Your task to perform on an android device: Go to Wikipedia Image 0: 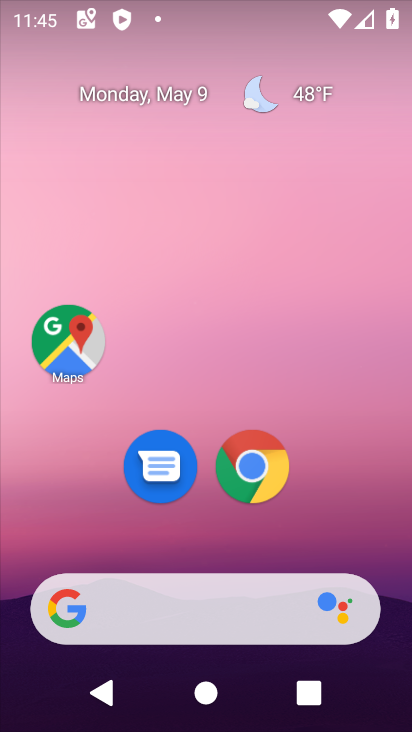
Step 0: click (245, 462)
Your task to perform on an android device: Go to Wikipedia Image 1: 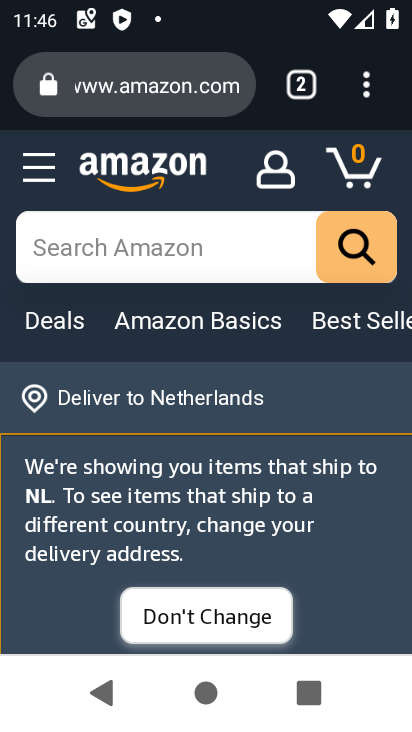
Step 1: click (360, 92)
Your task to perform on an android device: Go to Wikipedia Image 2: 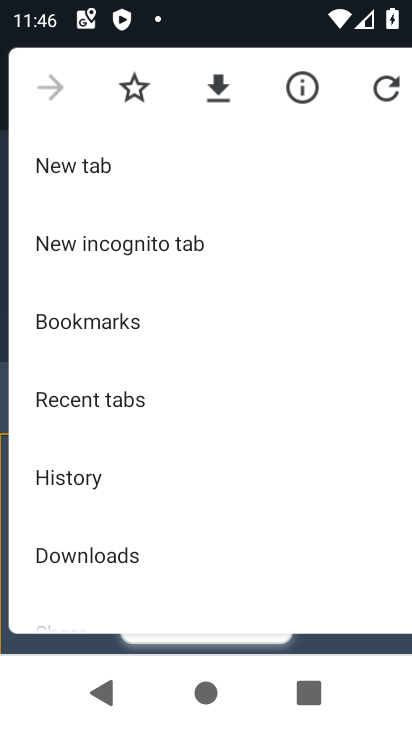
Step 2: click (43, 165)
Your task to perform on an android device: Go to Wikipedia Image 3: 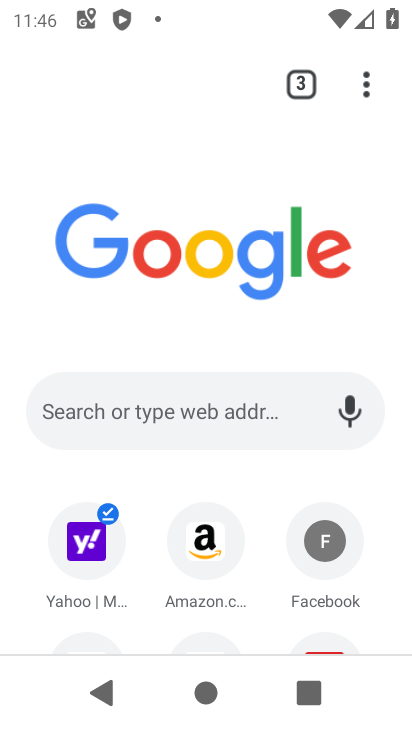
Step 3: drag from (394, 591) to (372, 167)
Your task to perform on an android device: Go to Wikipedia Image 4: 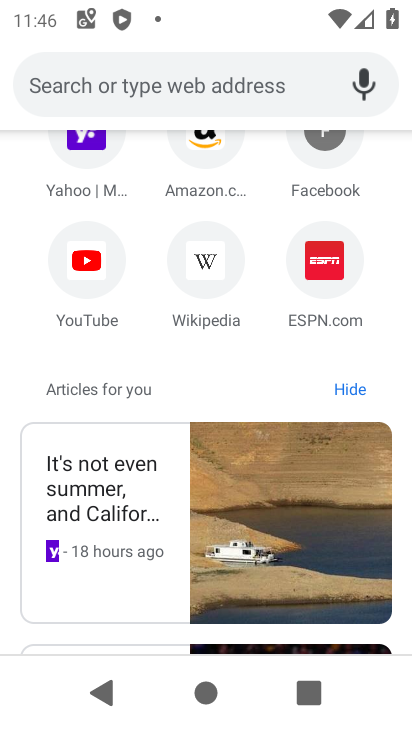
Step 4: click (205, 255)
Your task to perform on an android device: Go to Wikipedia Image 5: 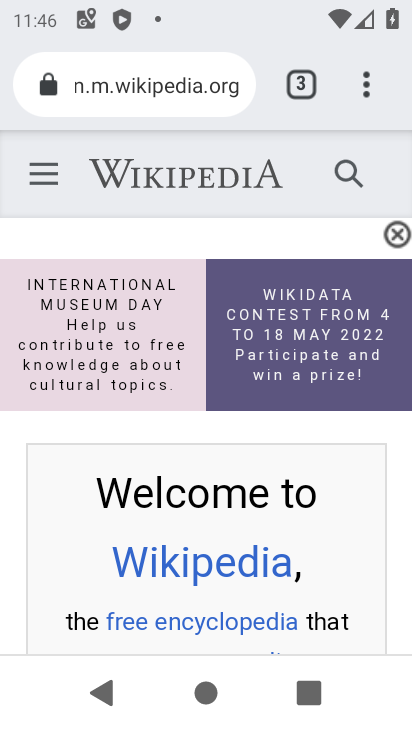
Step 5: task complete